Your task to perform on an android device: Search for jbl flip 4 on amazon, select the first entry, add it to the cart, then select checkout. Image 0: 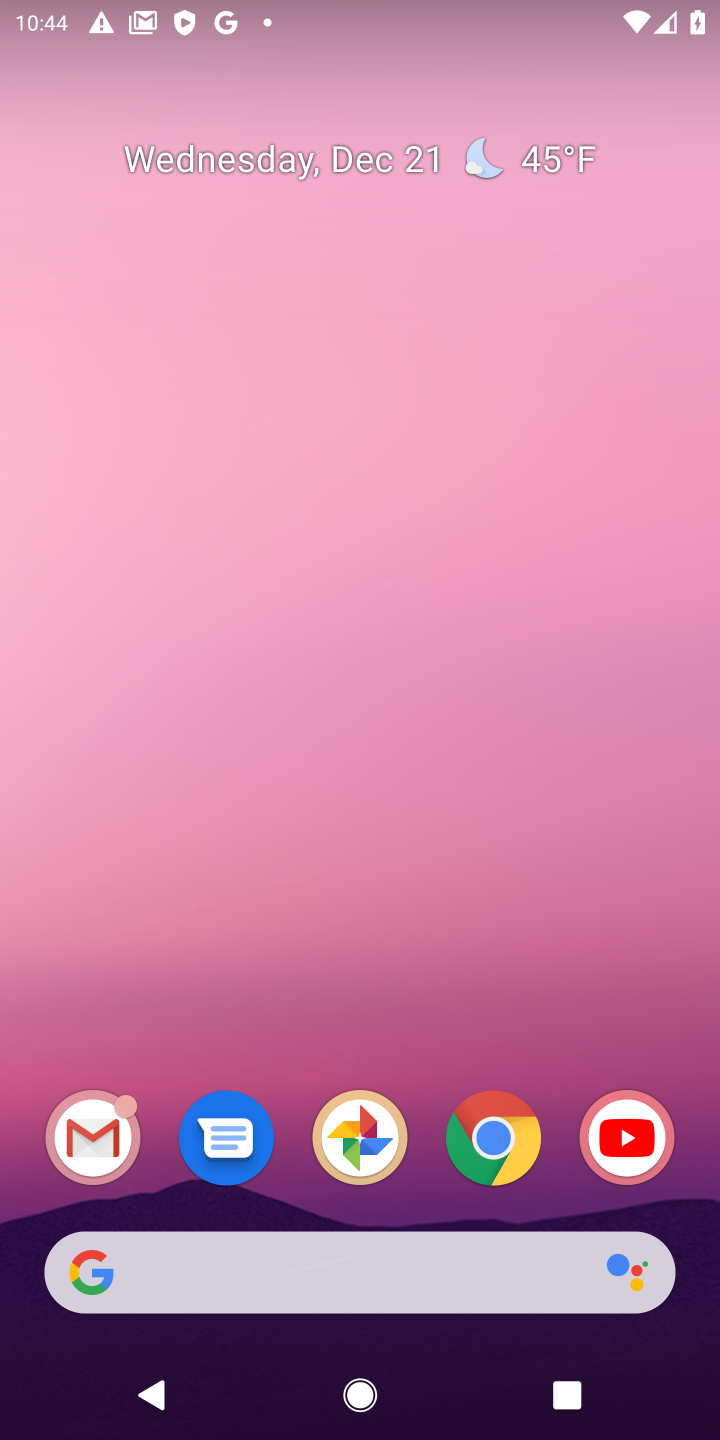
Step 0: click (508, 1160)
Your task to perform on an android device: Search for jbl flip 4 on amazon, select the first entry, add it to the cart, then select checkout. Image 1: 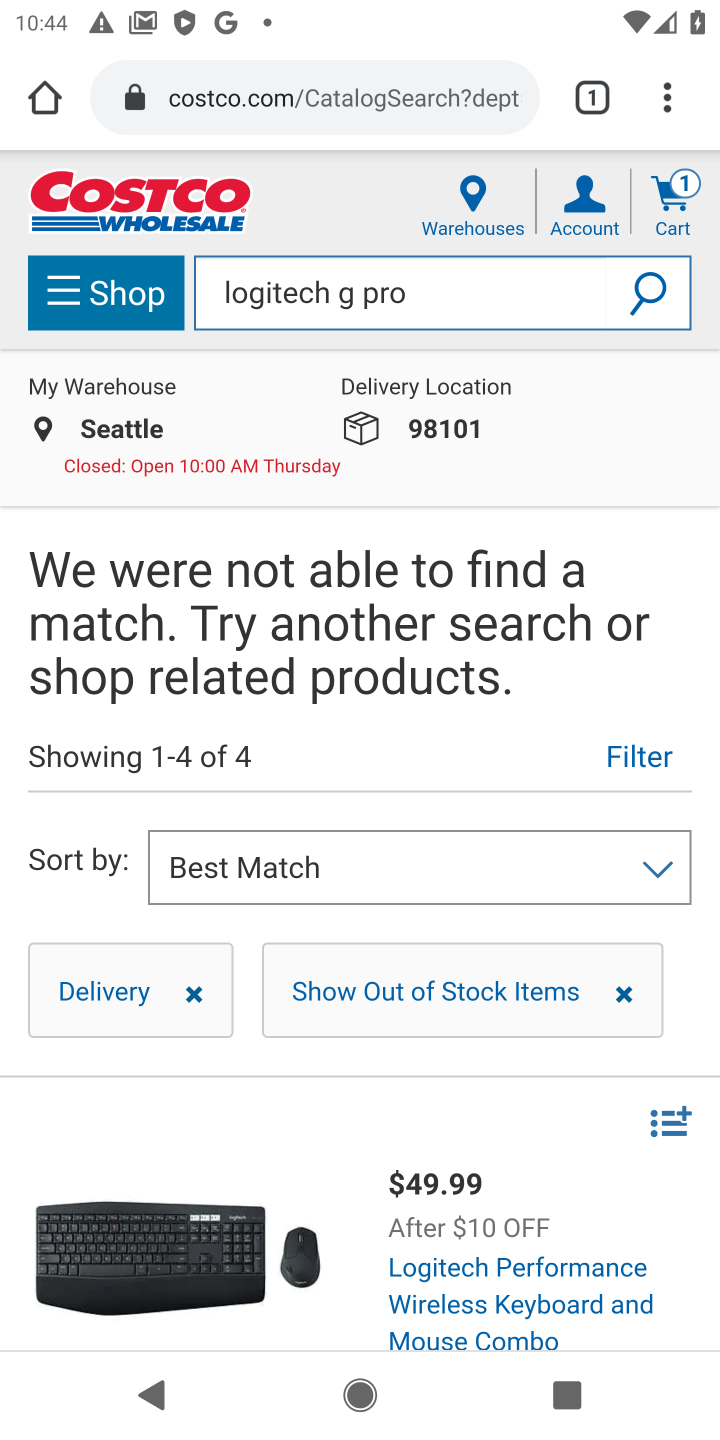
Step 1: click (256, 111)
Your task to perform on an android device: Search for jbl flip 4 on amazon, select the first entry, add it to the cart, then select checkout. Image 2: 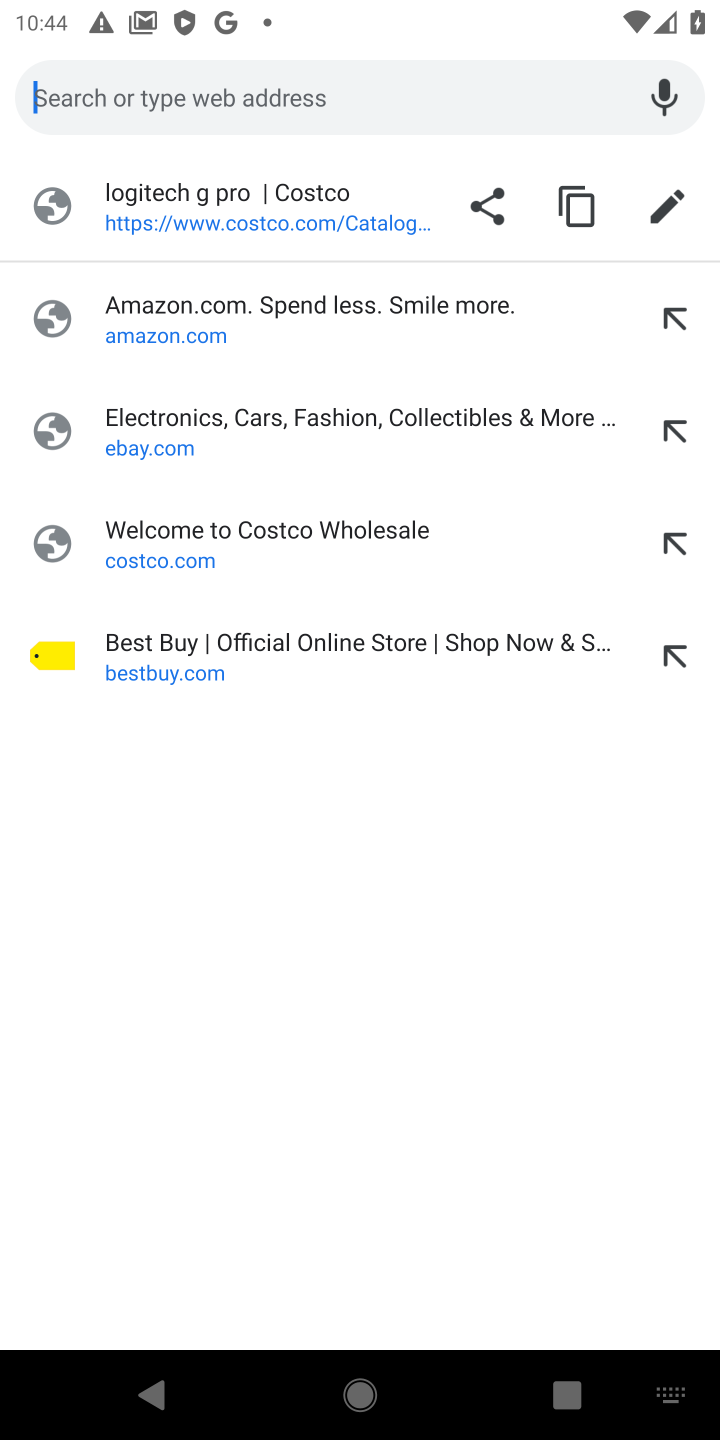
Step 2: click (129, 335)
Your task to perform on an android device: Search for jbl flip 4 on amazon, select the first entry, add it to the cart, then select checkout. Image 3: 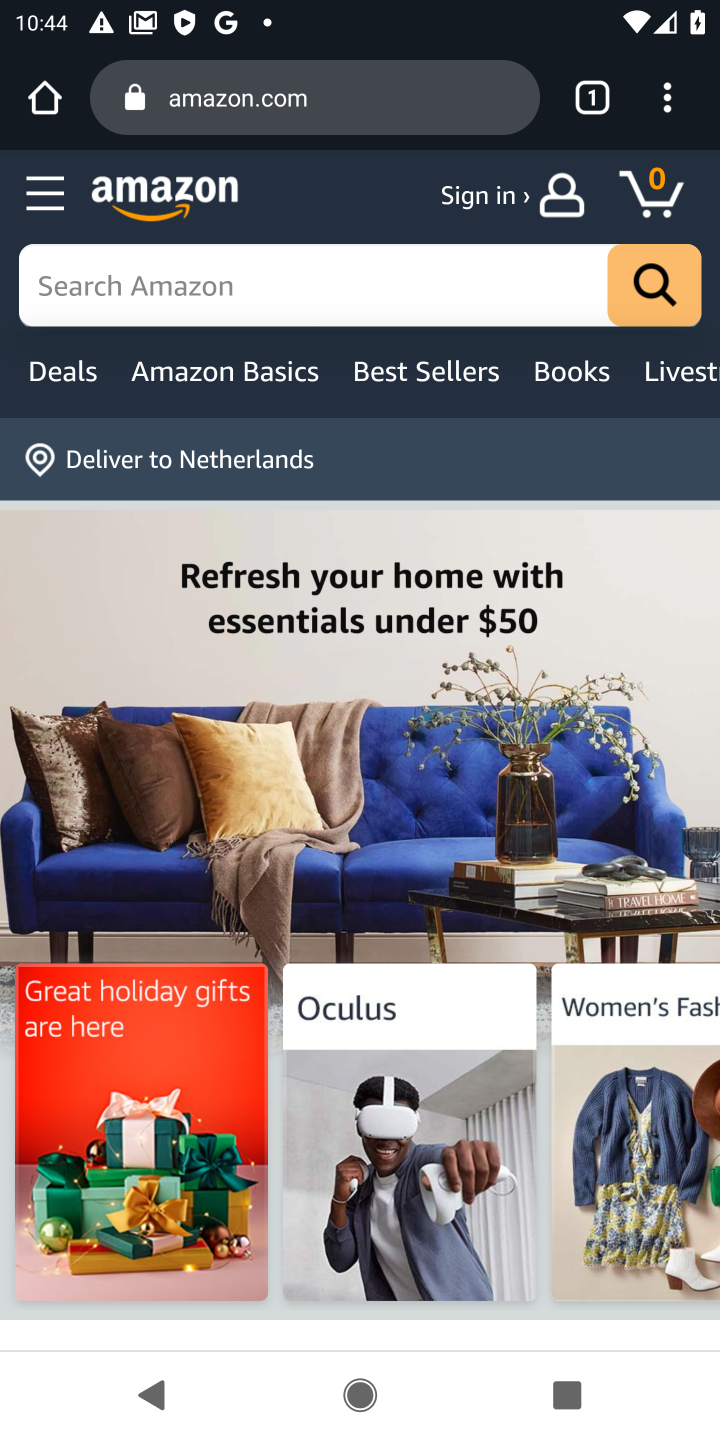
Step 3: click (87, 280)
Your task to perform on an android device: Search for jbl flip 4 on amazon, select the first entry, add it to the cart, then select checkout. Image 4: 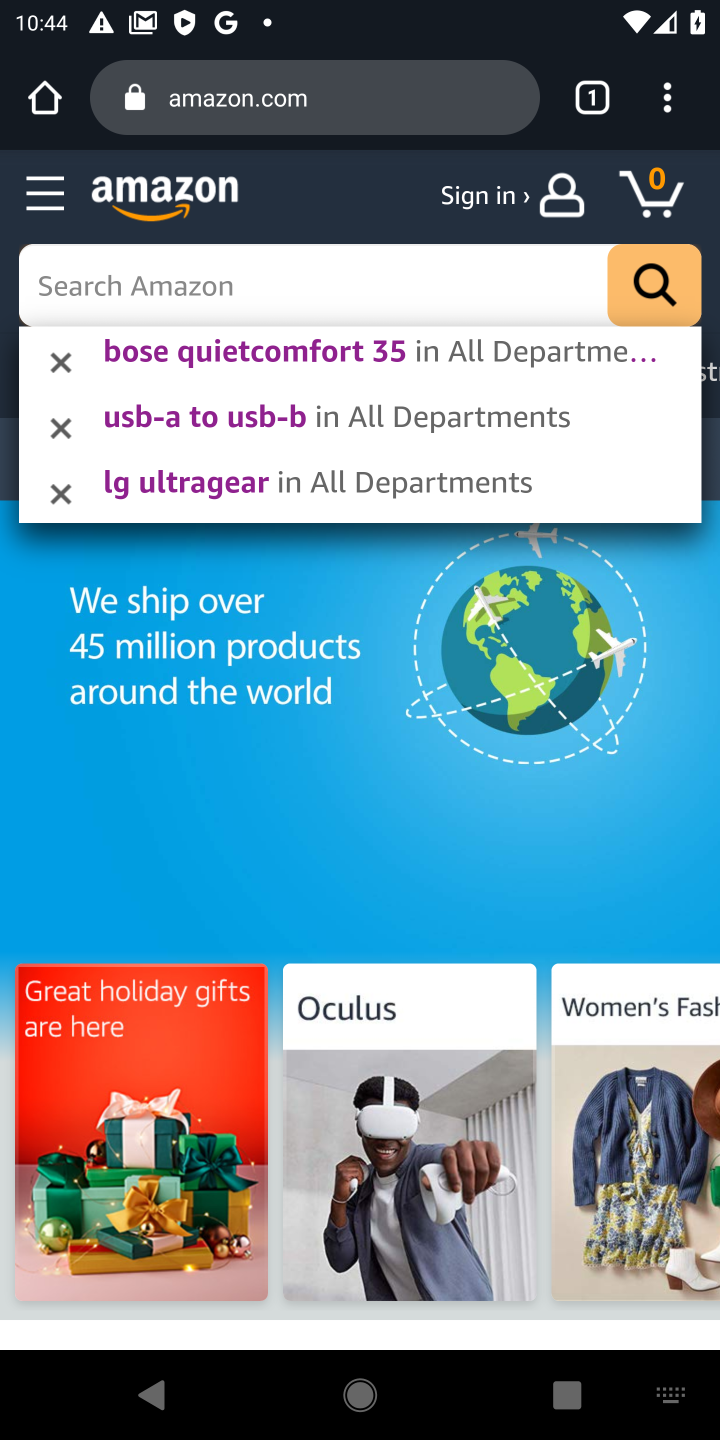
Step 4: type " jbl flip 4"
Your task to perform on an android device: Search for jbl flip 4 on amazon, select the first entry, add it to the cart, then select checkout. Image 5: 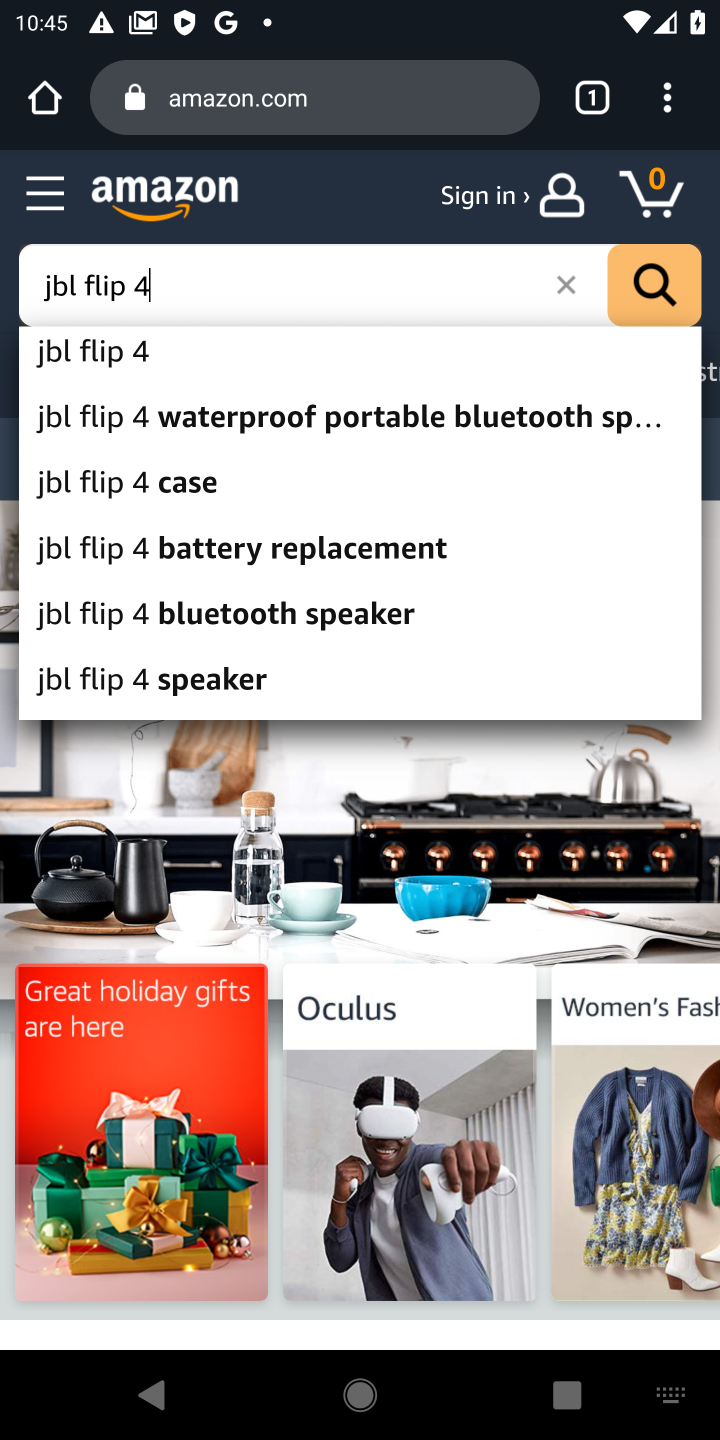
Step 5: click (100, 362)
Your task to perform on an android device: Search for jbl flip 4 on amazon, select the first entry, add it to the cart, then select checkout. Image 6: 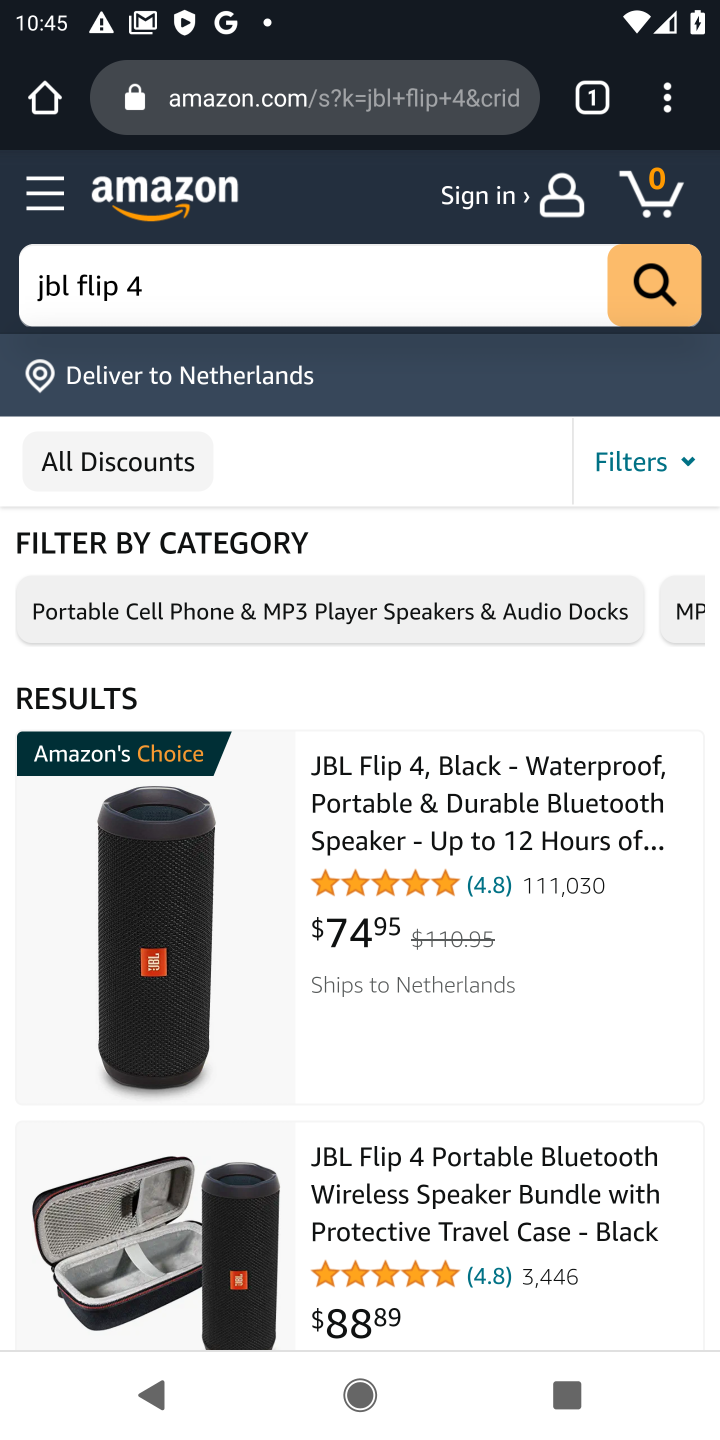
Step 6: click (476, 818)
Your task to perform on an android device: Search for jbl flip 4 on amazon, select the first entry, add it to the cart, then select checkout. Image 7: 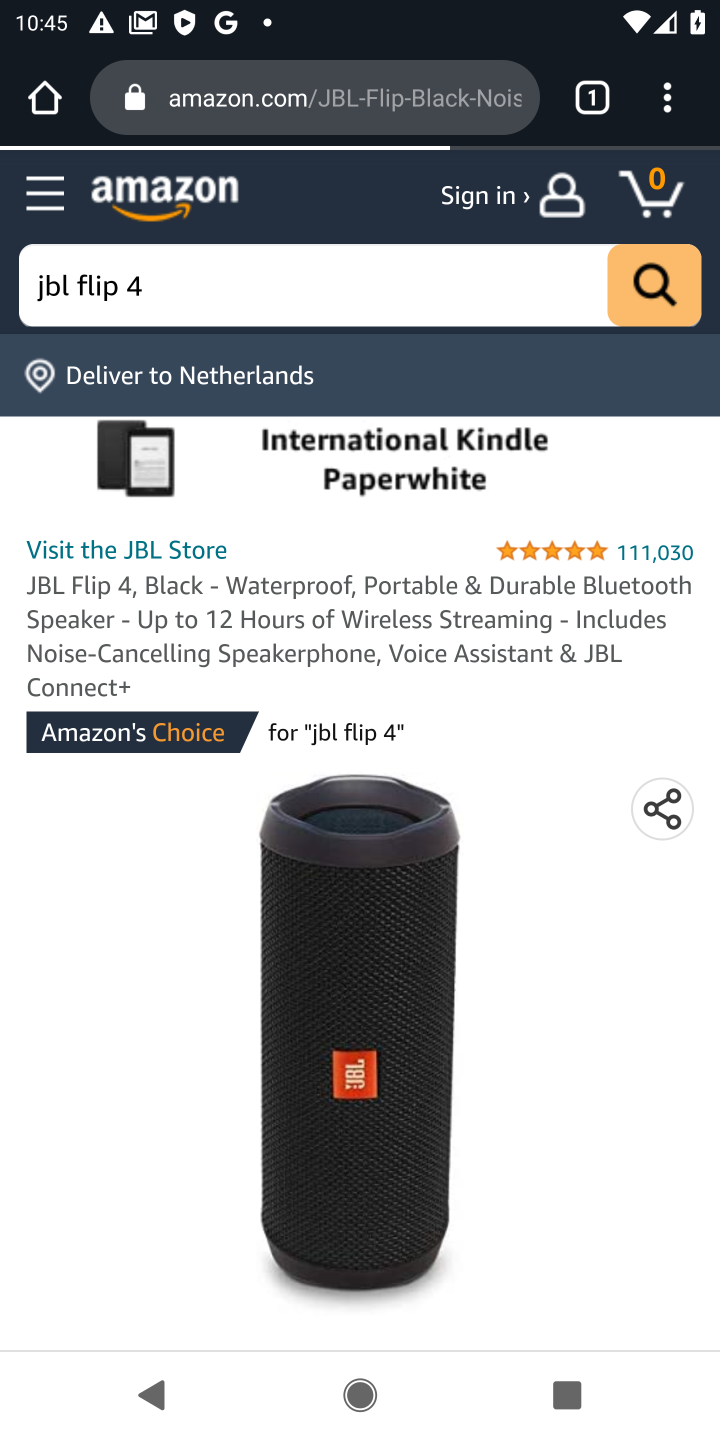
Step 7: drag from (290, 981) to (302, 530)
Your task to perform on an android device: Search for jbl flip 4 on amazon, select the first entry, add it to the cart, then select checkout. Image 8: 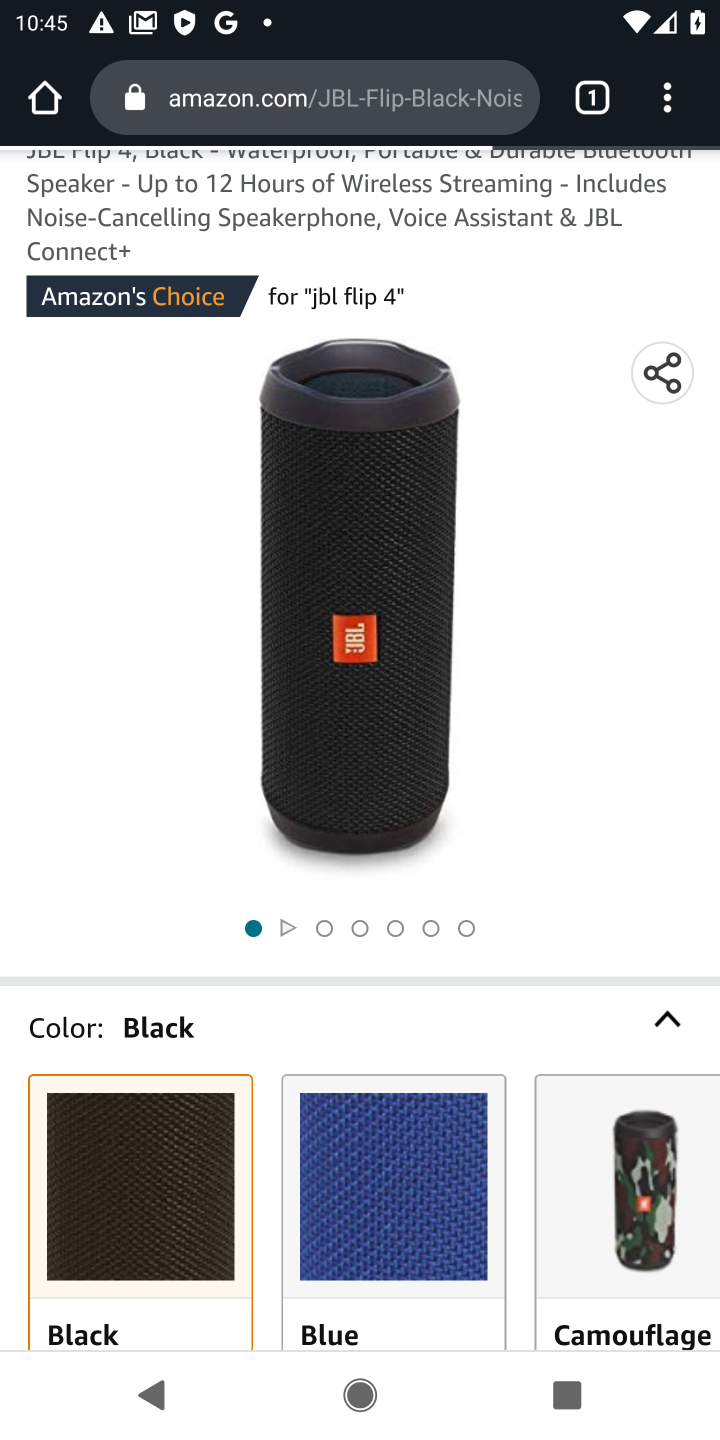
Step 8: drag from (319, 933) to (340, 370)
Your task to perform on an android device: Search for jbl flip 4 on amazon, select the first entry, add it to the cart, then select checkout. Image 9: 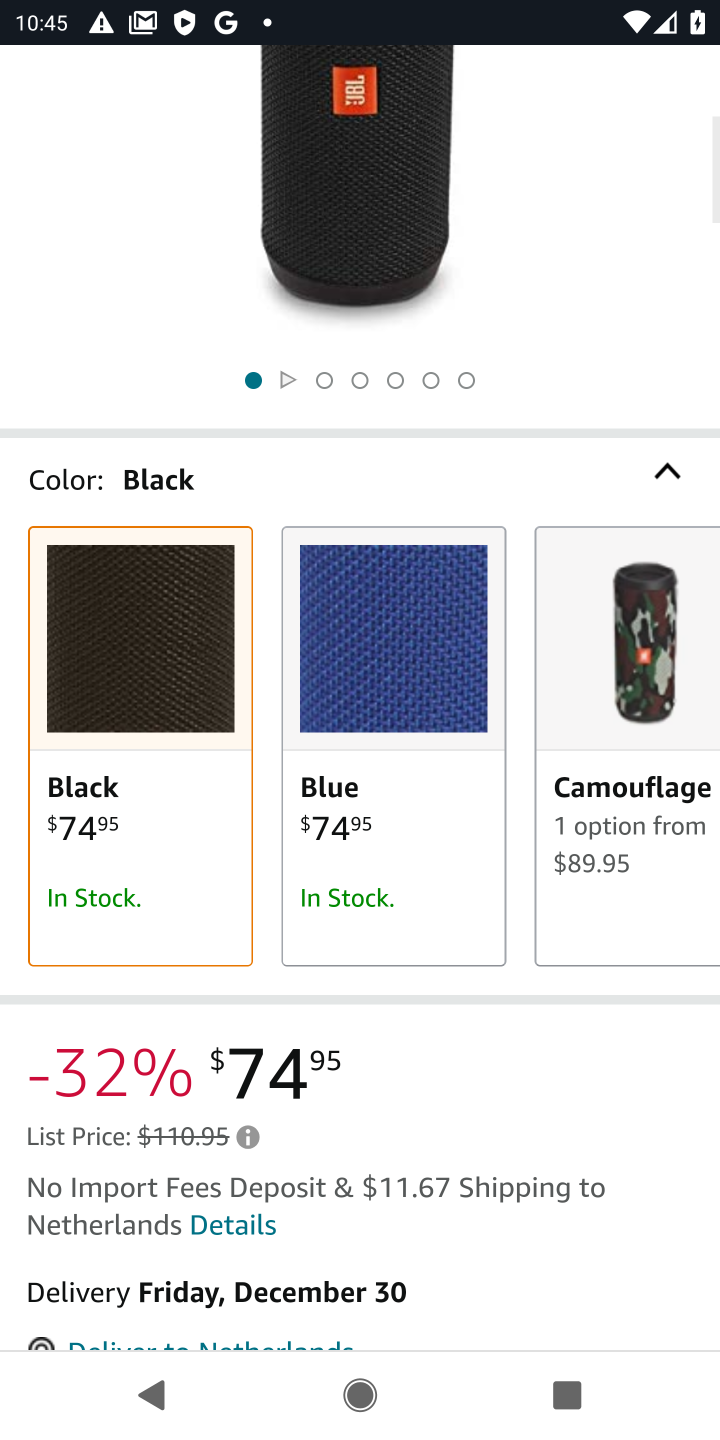
Step 9: drag from (318, 940) to (320, 420)
Your task to perform on an android device: Search for jbl flip 4 on amazon, select the first entry, add it to the cart, then select checkout. Image 10: 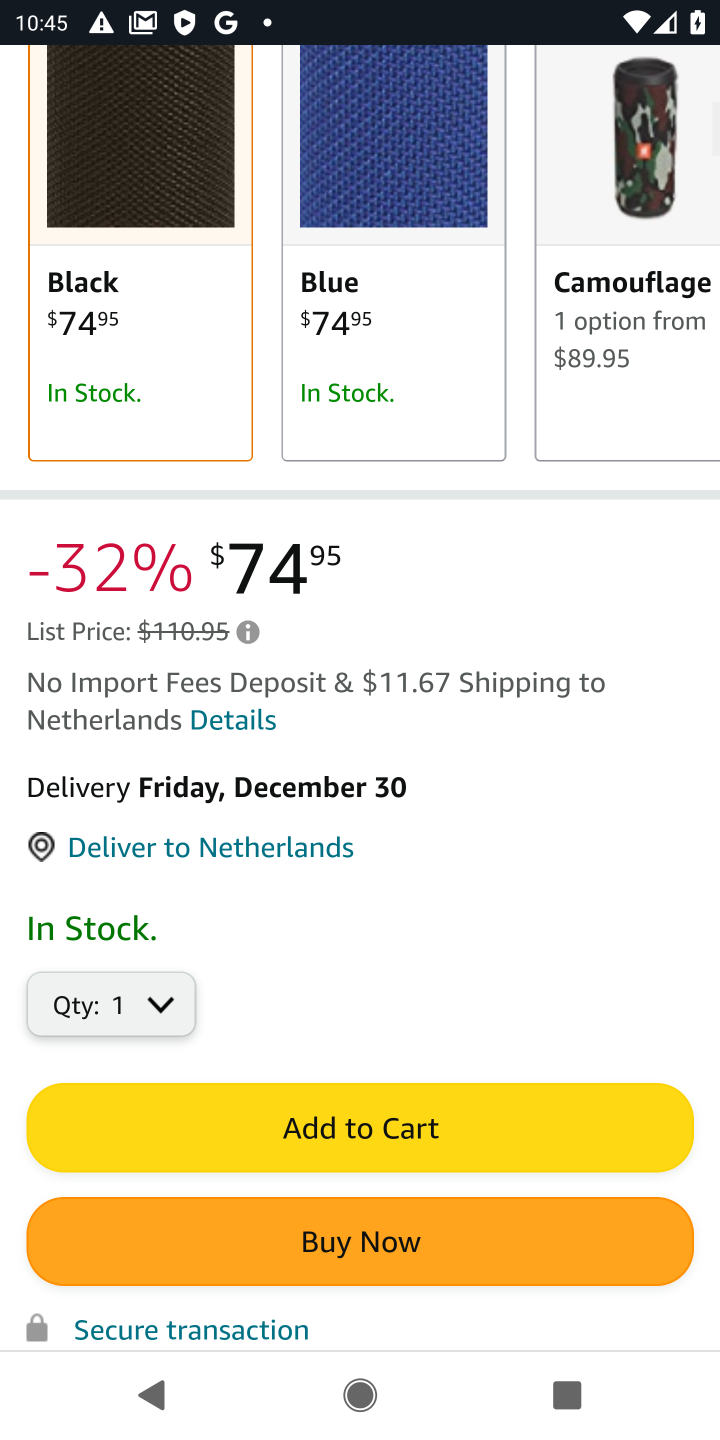
Step 10: drag from (311, 917) to (347, 451)
Your task to perform on an android device: Search for jbl flip 4 on amazon, select the first entry, add it to the cart, then select checkout. Image 11: 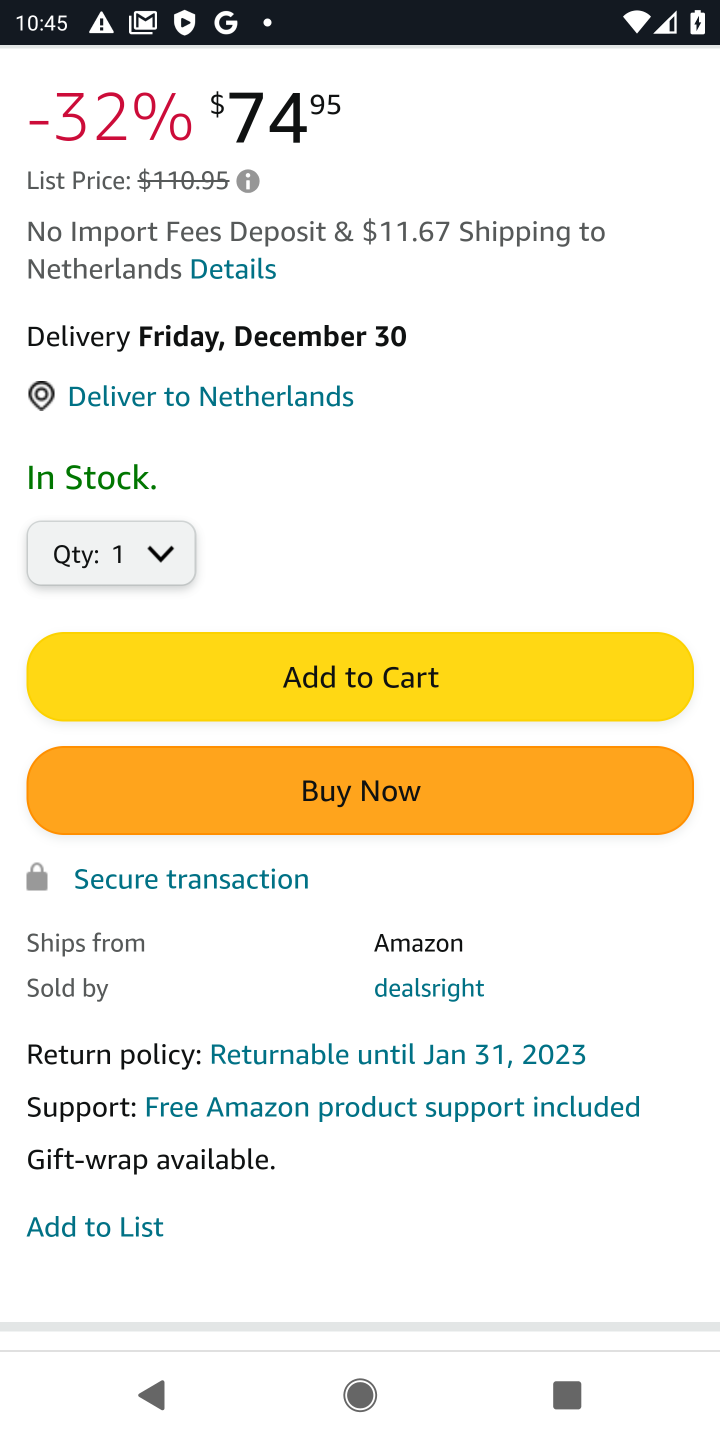
Step 11: click (326, 685)
Your task to perform on an android device: Search for jbl flip 4 on amazon, select the first entry, add it to the cart, then select checkout. Image 12: 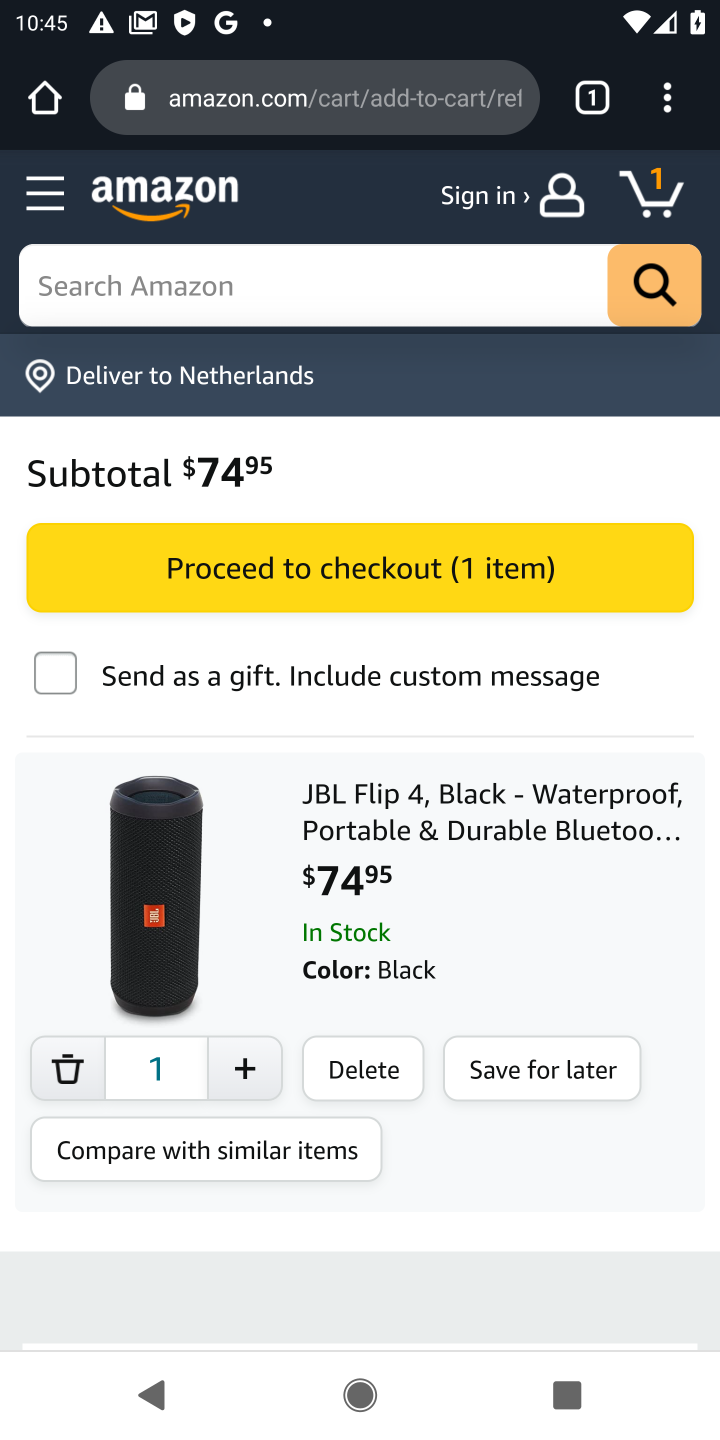
Step 12: click (350, 573)
Your task to perform on an android device: Search for jbl flip 4 on amazon, select the first entry, add it to the cart, then select checkout. Image 13: 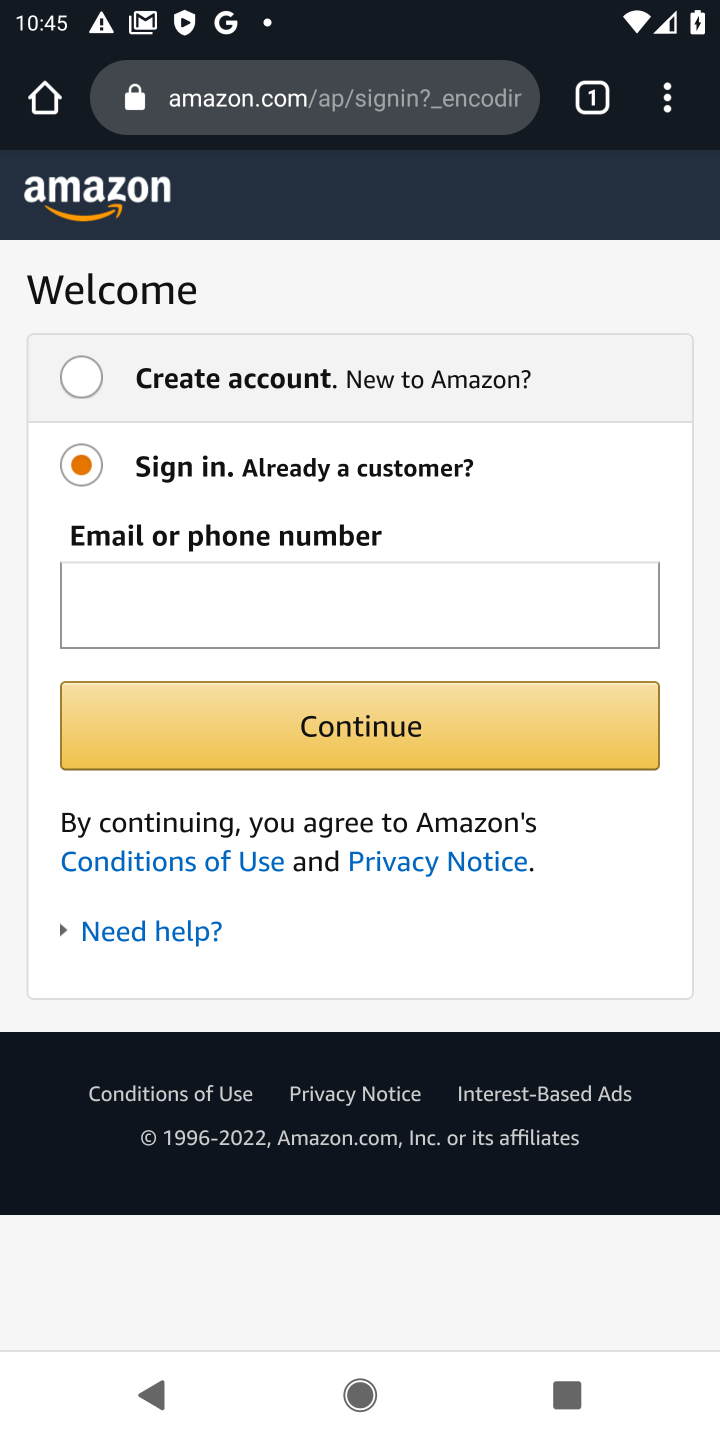
Step 13: task complete